Your task to perform on an android device: Go to accessibility settings Image 0: 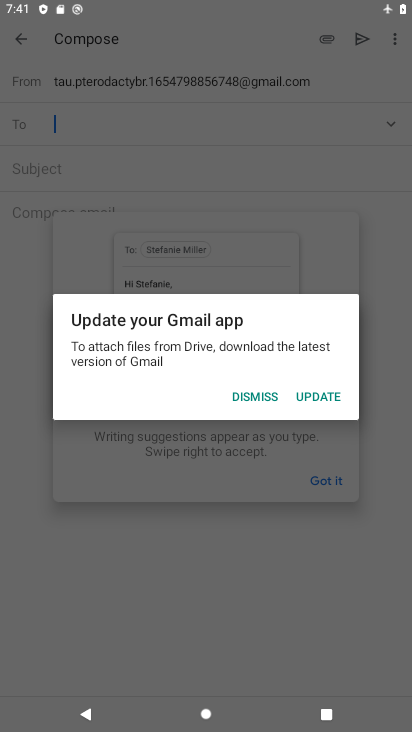
Step 0: press home button
Your task to perform on an android device: Go to accessibility settings Image 1: 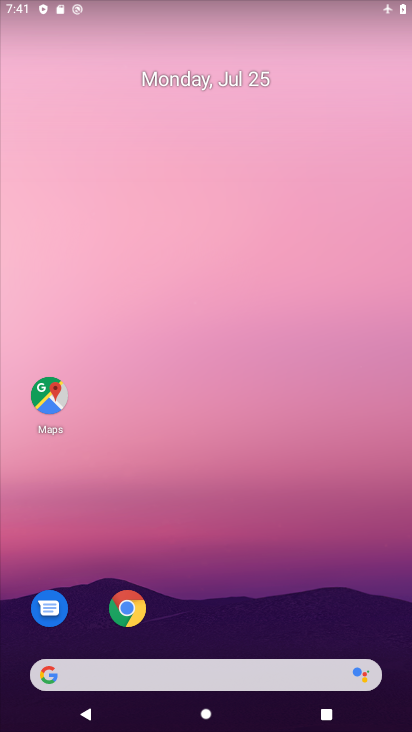
Step 1: drag from (291, 612) to (217, 2)
Your task to perform on an android device: Go to accessibility settings Image 2: 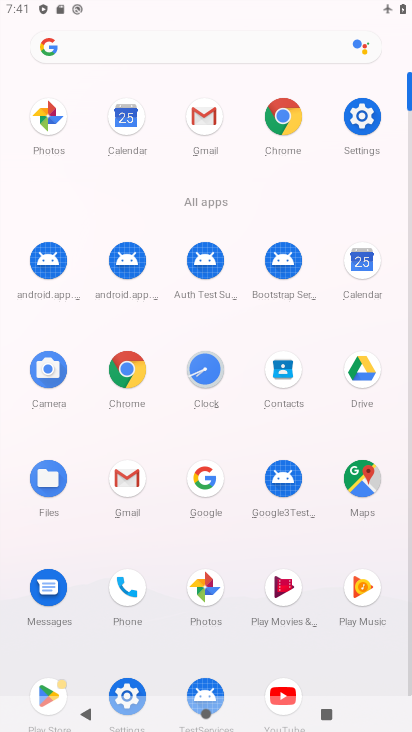
Step 2: click (372, 118)
Your task to perform on an android device: Go to accessibility settings Image 3: 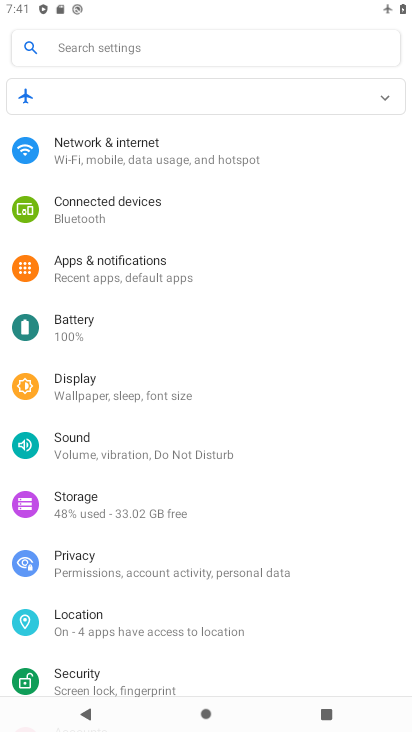
Step 3: drag from (240, 535) to (211, 191)
Your task to perform on an android device: Go to accessibility settings Image 4: 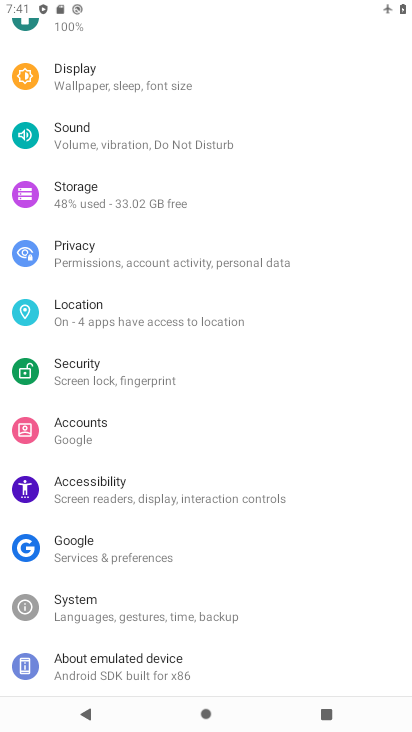
Step 4: click (99, 476)
Your task to perform on an android device: Go to accessibility settings Image 5: 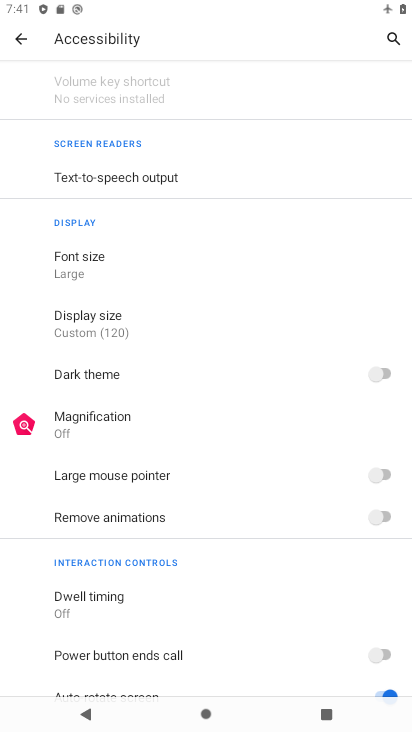
Step 5: task complete